Your task to perform on an android device: Open the phone app and click the voicemail tab. Image 0: 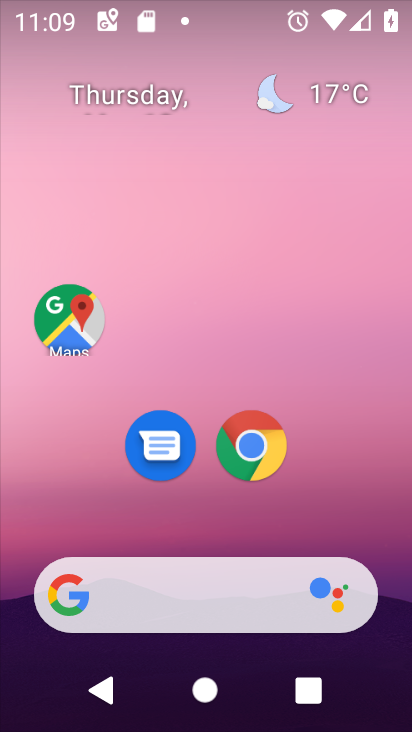
Step 0: drag from (213, 518) to (186, 158)
Your task to perform on an android device: Open the phone app and click the voicemail tab. Image 1: 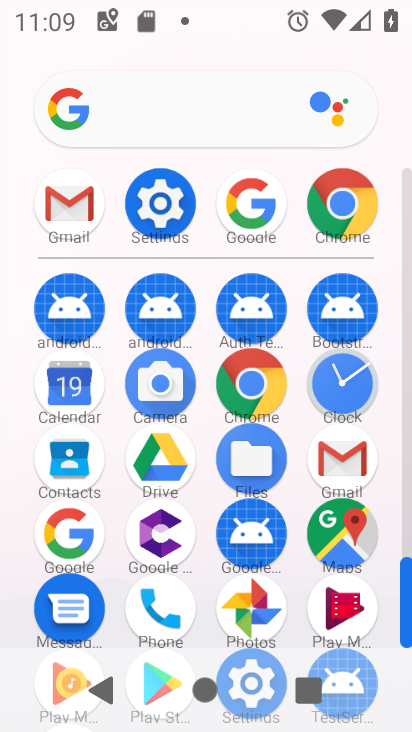
Step 1: click (161, 606)
Your task to perform on an android device: Open the phone app and click the voicemail tab. Image 2: 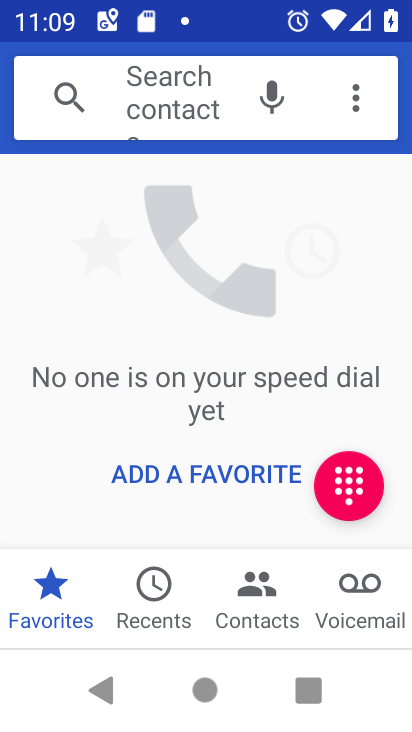
Step 2: click (360, 603)
Your task to perform on an android device: Open the phone app and click the voicemail tab. Image 3: 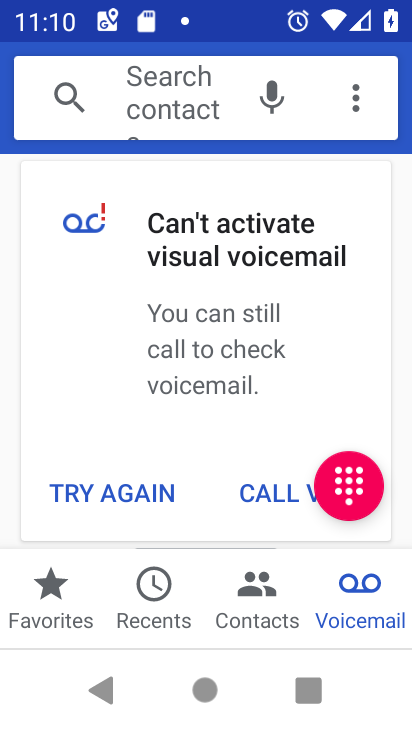
Step 3: task complete